Your task to perform on an android device: set the timer Image 0: 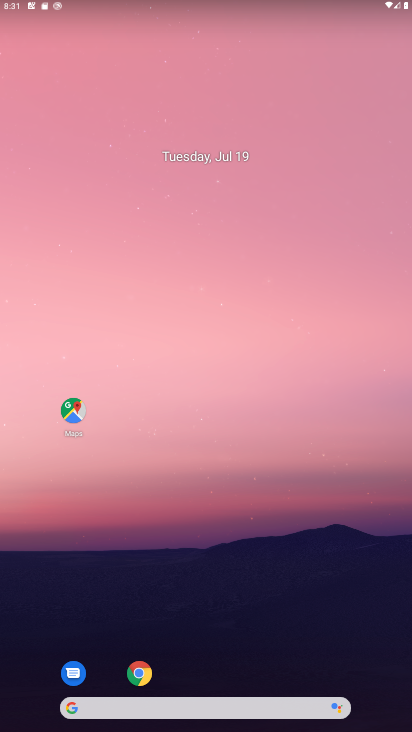
Step 0: drag from (359, 664) to (311, 273)
Your task to perform on an android device: set the timer Image 1: 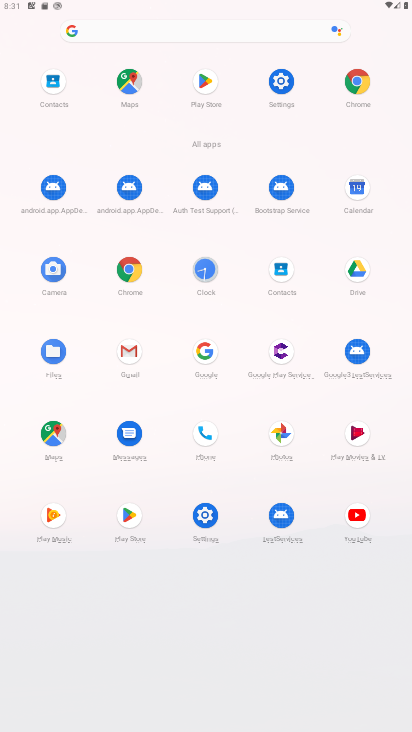
Step 1: click (206, 269)
Your task to perform on an android device: set the timer Image 2: 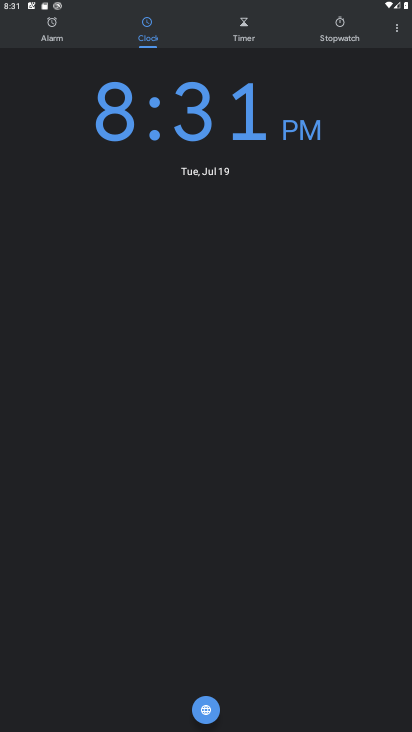
Step 2: click (243, 29)
Your task to perform on an android device: set the timer Image 3: 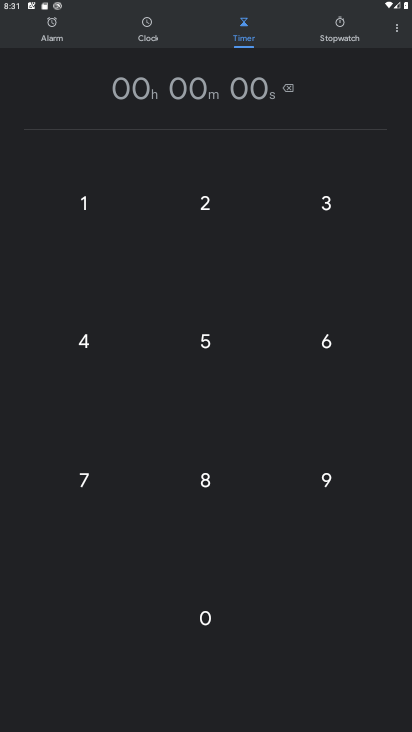
Step 3: click (86, 209)
Your task to perform on an android device: set the timer Image 4: 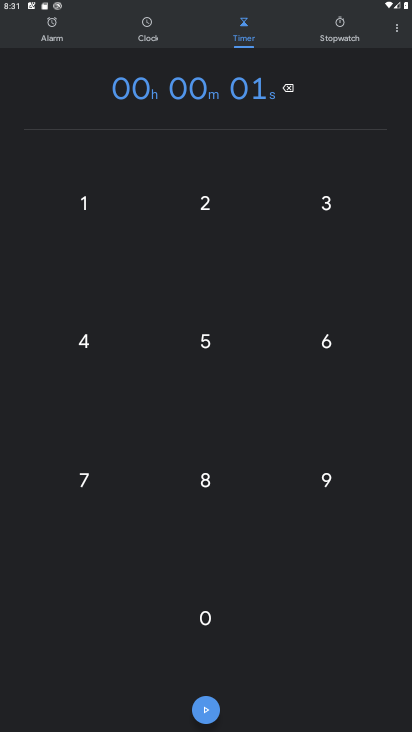
Step 4: click (320, 206)
Your task to perform on an android device: set the timer Image 5: 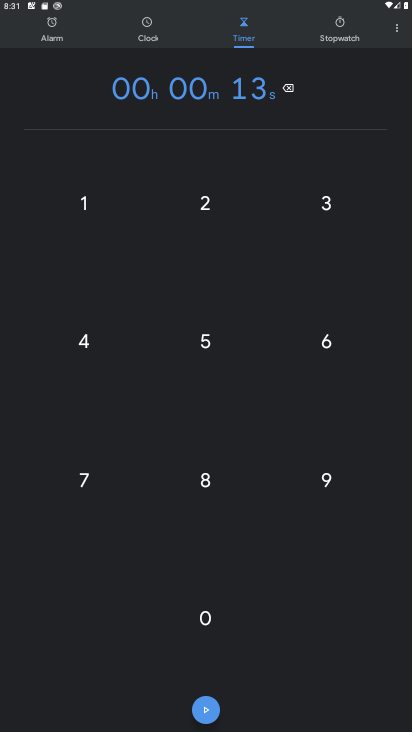
Step 5: click (320, 206)
Your task to perform on an android device: set the timer Image 6: 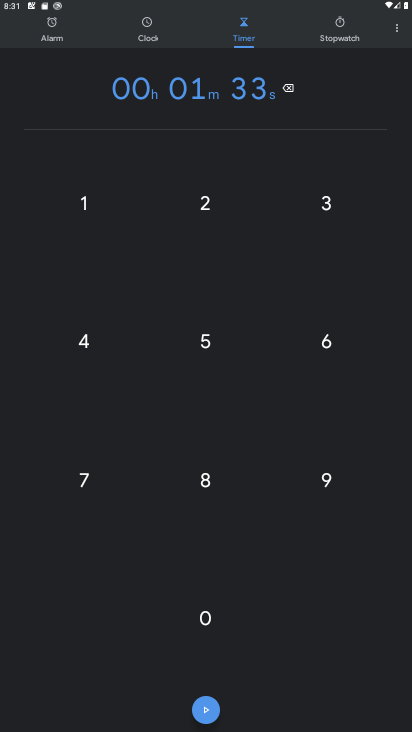
Step 6: click (209, 621)
Your task to perform on an android device: set the timer Image 7: 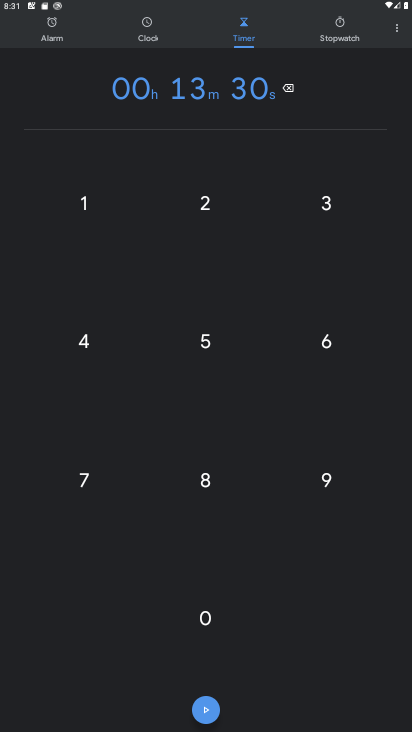
Step 7: click (209, 621)
Your task to perform on an android device: set the timer Image 8: 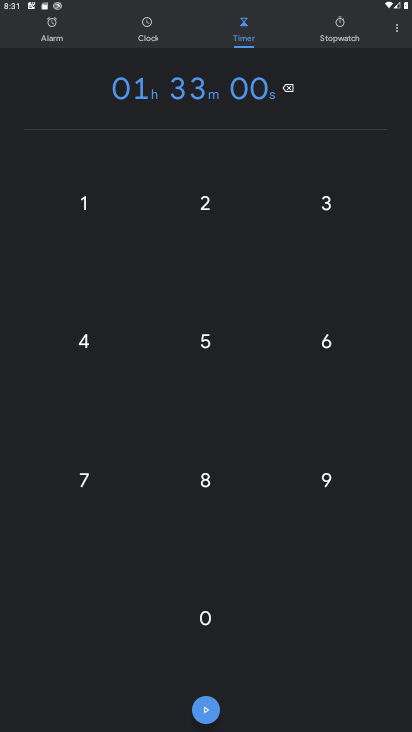
Step 8: task complete